Your task to perform on an android device: turn on javascript in the chrome app Image 0: 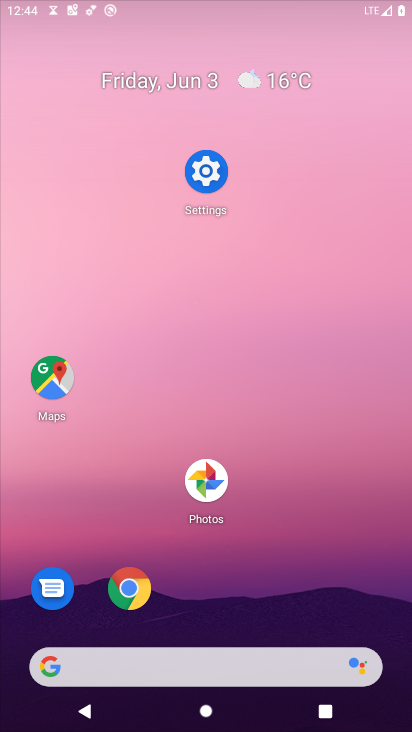
Step 0: drag from (228, 532) to (257, 295)
Your task to perform on an android device: turn on javascript in the chrome app Image 1: 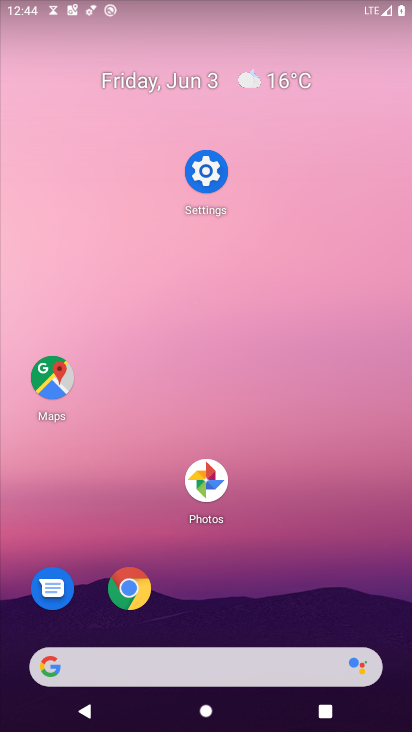
Step 1: drag from (171, 577) to (155, 271)
Your task to perform on an android device: turn on javascript in the chrome app Image 2: 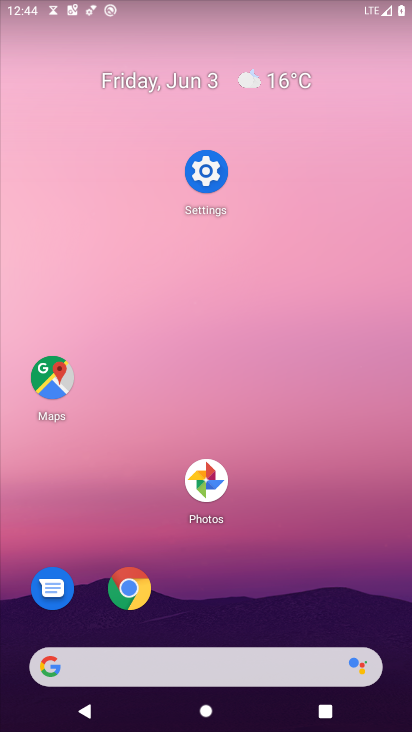
Step 2: drag from (191, 561) to (207, 72)
Your task to perform on an android device: turn on javascript in the chrome app Image 3: 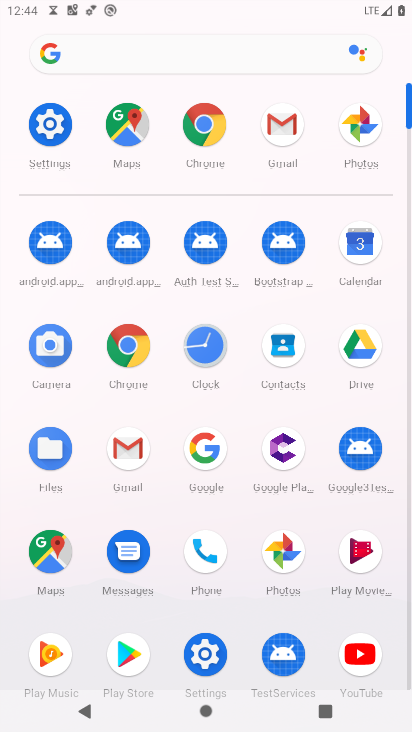
Step 3: click (117, 343)
Your task to perform on an android device: turn on javascript in the chrome app Image 4: 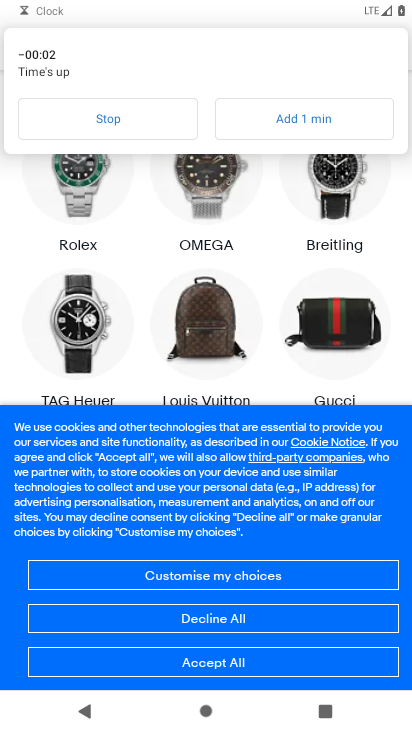
Step 4: click (142, 128)
Your task to perform on an android device: turn on javascript in the chrome app Image 5: 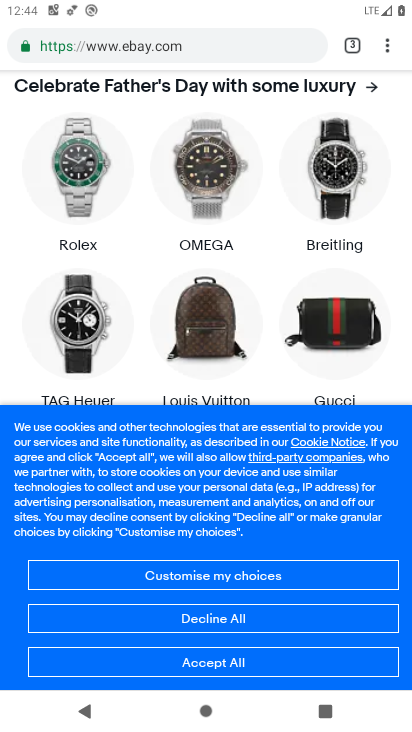
Step 5: click (391, 40)
Your task to perform on an android device: turn on javascript in the chrome app Image 6: 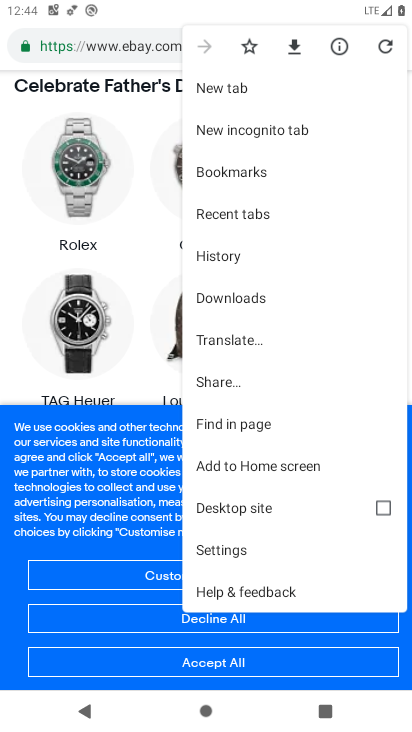
Step 6: click (226, 555)
Your task to perform on an android device: turn on javascript in the chrome app Image 7: 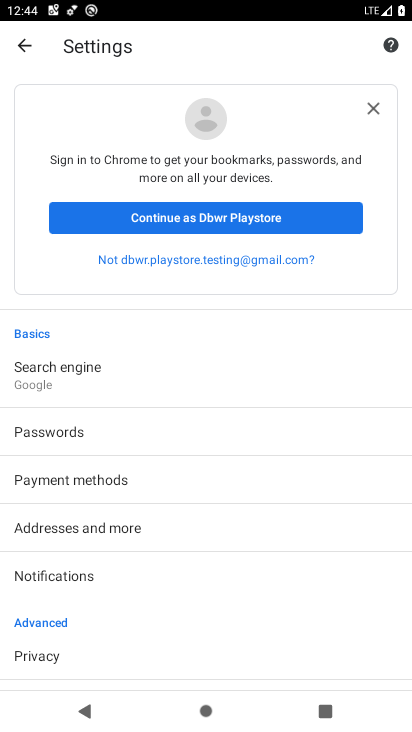
Step 7: drag from (150, 540) to (275, 154)
Your task to perform on an android device: turn on javascript in the chrome app Image 8: 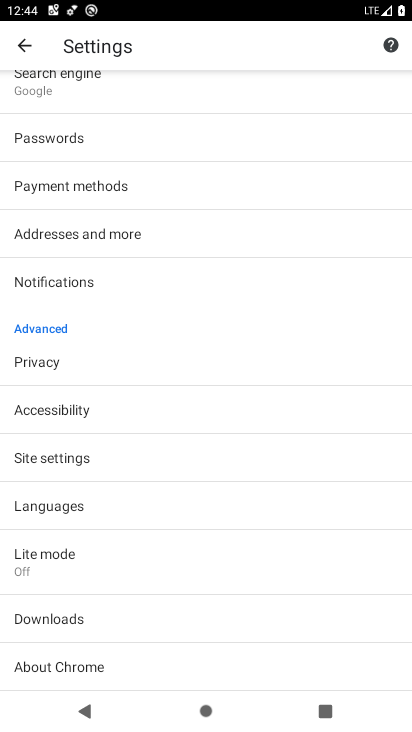
Step 8: click (81, 455)
Your task to perform on an android device: turn on javascript in the chrome app Image 9: 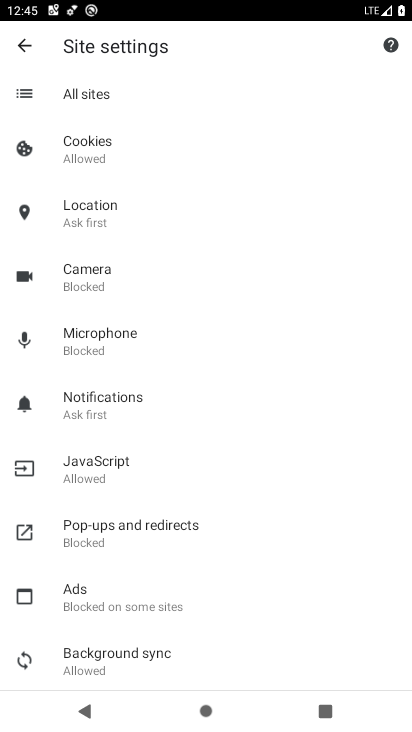
Step 9: click (129, 468)
Your task to perform on an android device: turn on javascript in the chrome app Image 10: 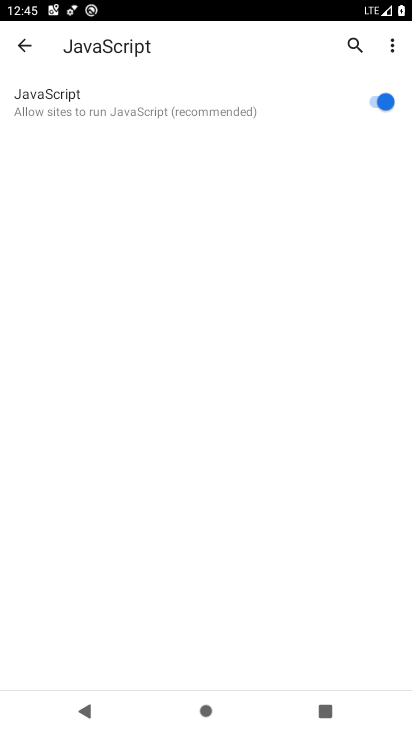
Step 10: task complete